Your task to perform on an android device: turn on location history Image 0: 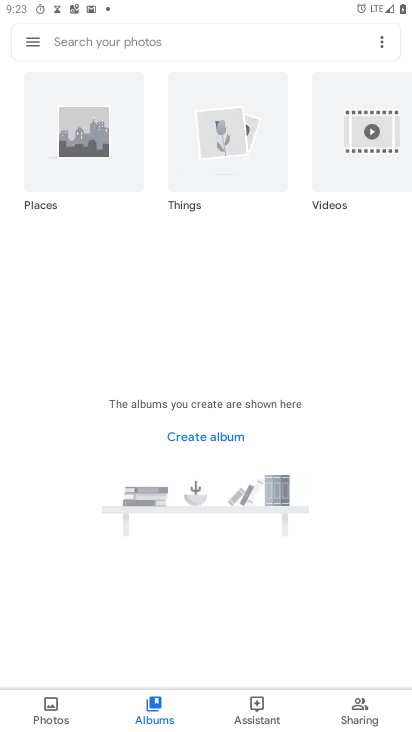
Step 0: press home button
Your task to perform on an android device: turn on location history Image 1: 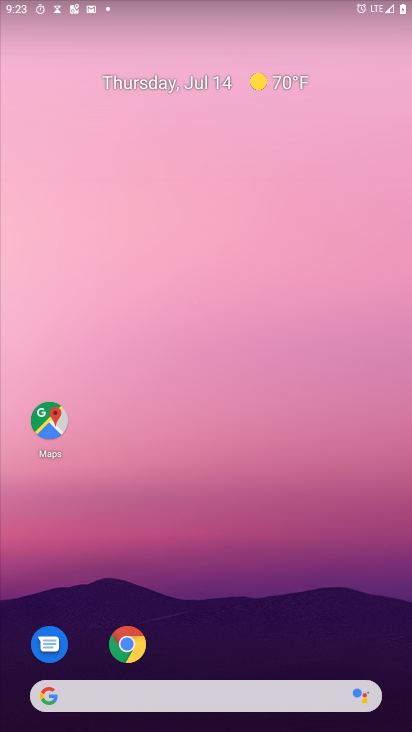
Step 1: click (50, 423)
Your task to perform on an android device: turn on location history Image 2: 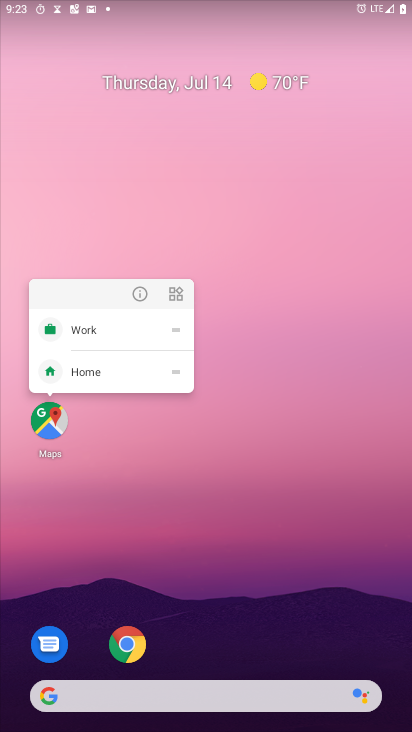
Step 2: click (43, 422)
Your task to perform on an android device: turn on location history Image 3: 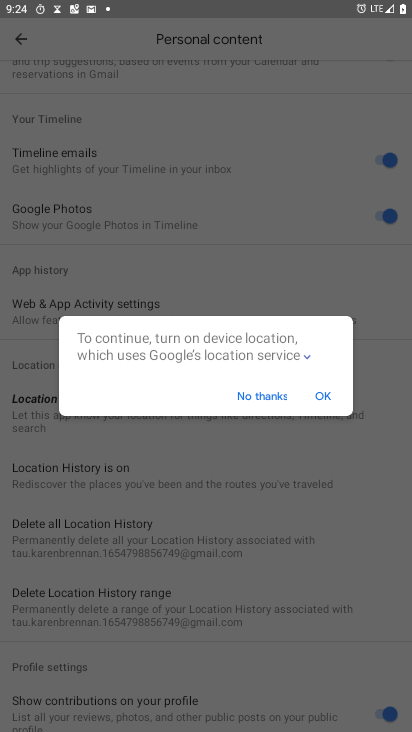
Step 3: click (326, 395)
Your task to perform on an android device: turn on location history Image 4: 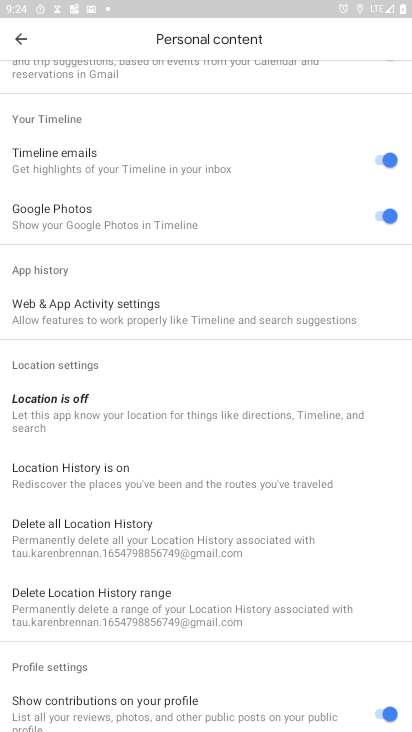
Step 4: click (116, 477)
Your task to perform on an android device: turn on location history Image 5: 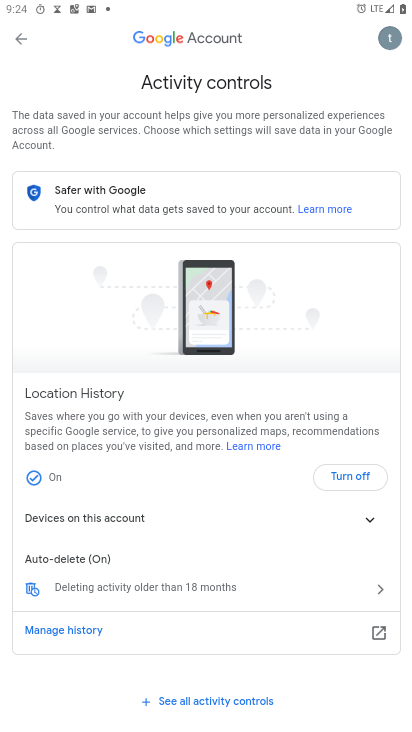
Step 5: task complete